Your task to perform on an android device: Play the last video I watched on Youtube Image 0: 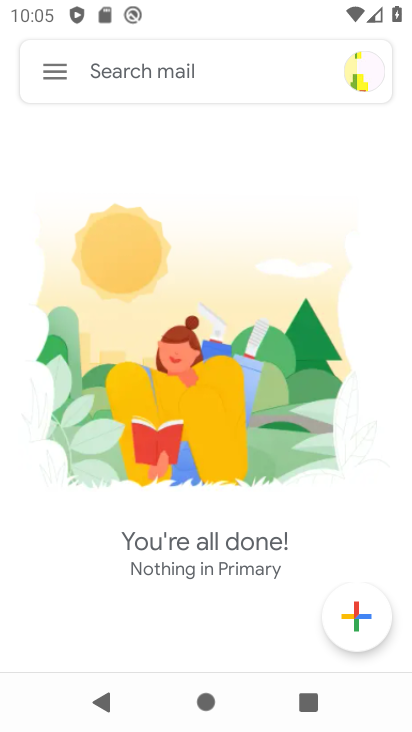
Step 0: press home button
Your task to perform on an android device: Play the last video I watched on Youtube Image 1: 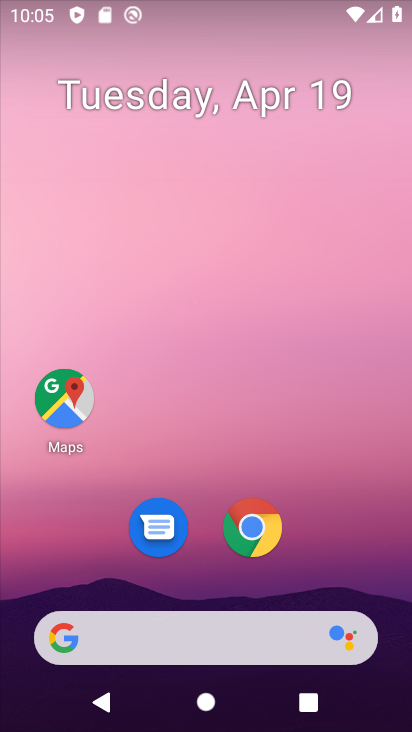
Step 1: drag from (282, 581) to (250, 165)
Your task to perform on an android device: Play the last video I watched on Youtube Image 2: 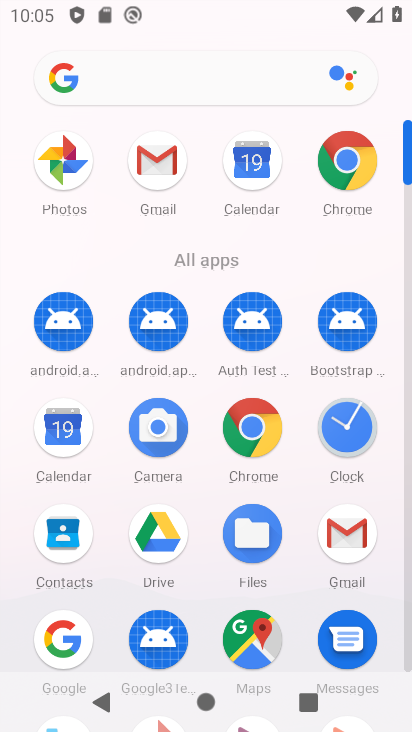
Step 2: drag from (303, 610) to (300, 129)
Your task to perform on an android device: Play the last video I watched on Youtube Image 3: 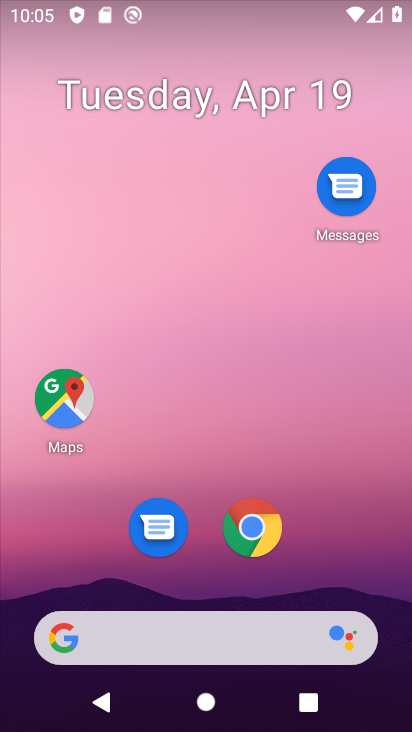
Step 3: drag from (307, 419) to (291, 192)
Your task to perform on an android device: Play the last video I watched on Youtube Image 4: 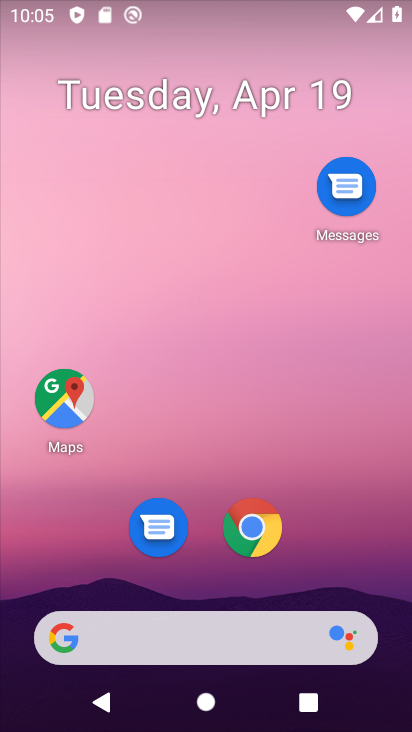
Step 4: drag from (284, 569) to (256, 86)
Your task to perform on an android device: Play the last video I watched on Youtube Image 5: 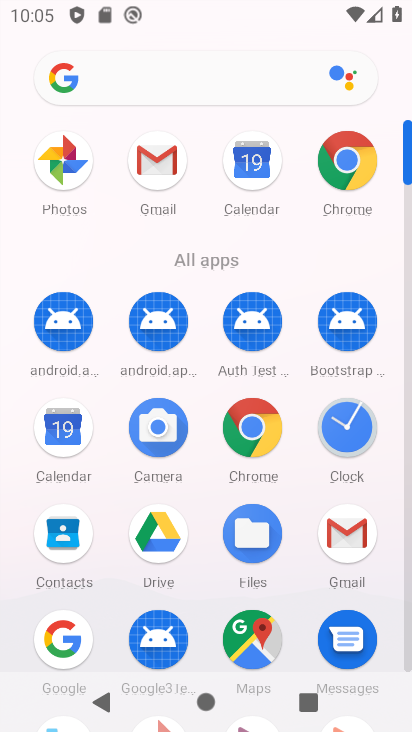
Step 5: drag from (301, 668) to (283, 187)
Your task to perform on an android device: Play the last video I watched on Youtube Image 6: 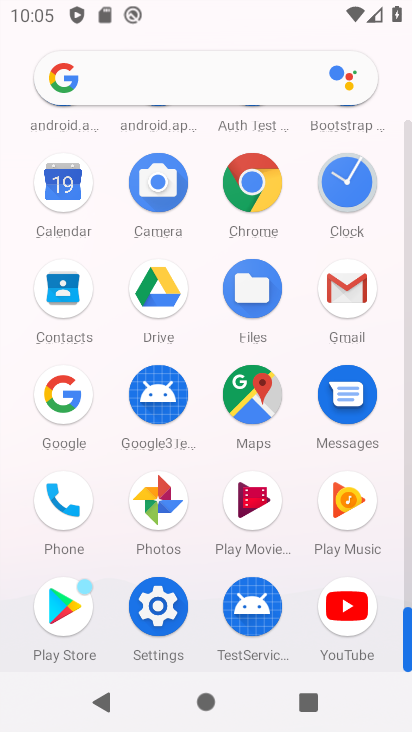
Step 6: click (351, 612)
Your task to perform on an android device: Play the last video I watched on Youtube Image 7: 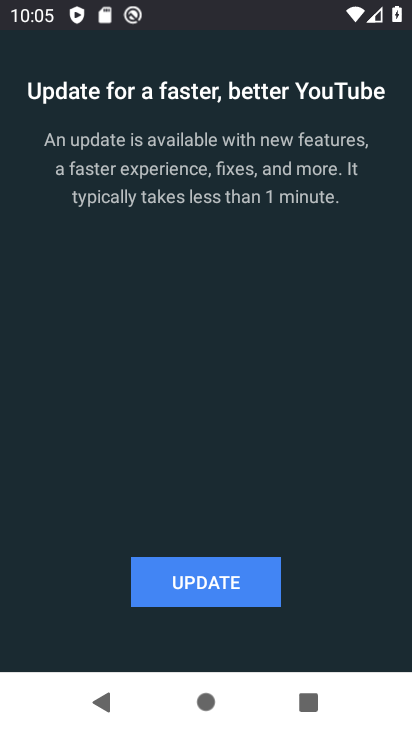
Step 7: click (245, 584)
Your task to perform on an android device: Play the last video I watched on Youtube Image 8: 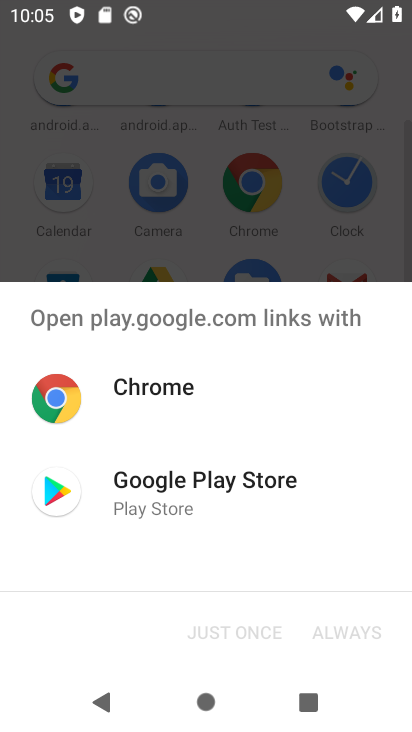
Step 8: click (179, 406)
Your task to perform on an android device: Play the last video I watched on Youtube Image 9: 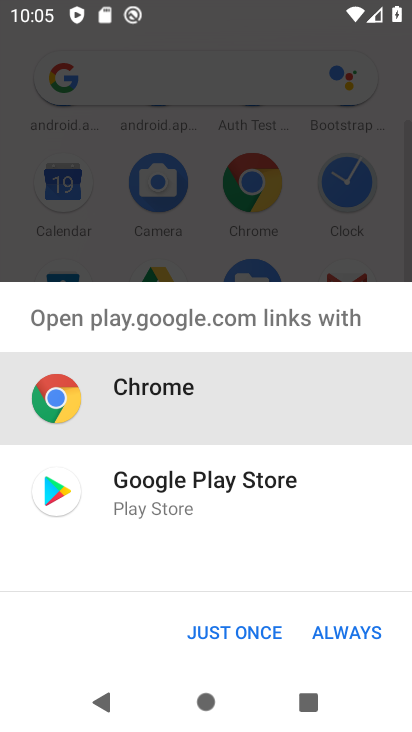
Step 9: click (176, 482)
Your task to perform on an android device: Play the last video I watched on Youtube Image 10: 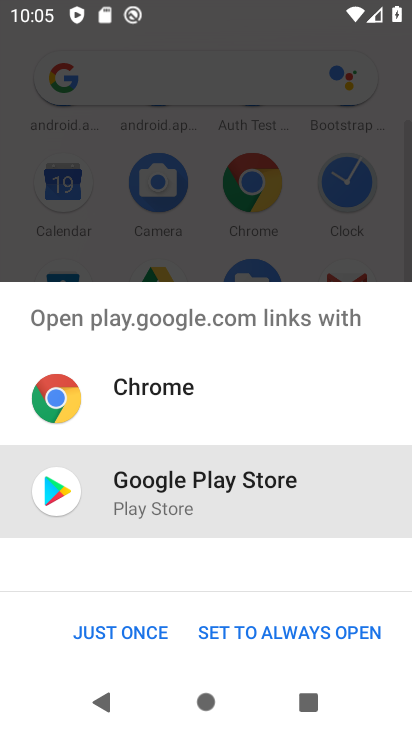
Step 10: click (227, 632)
Your task to perform on an android device: Play the last video I watched on Youtube Image 11: 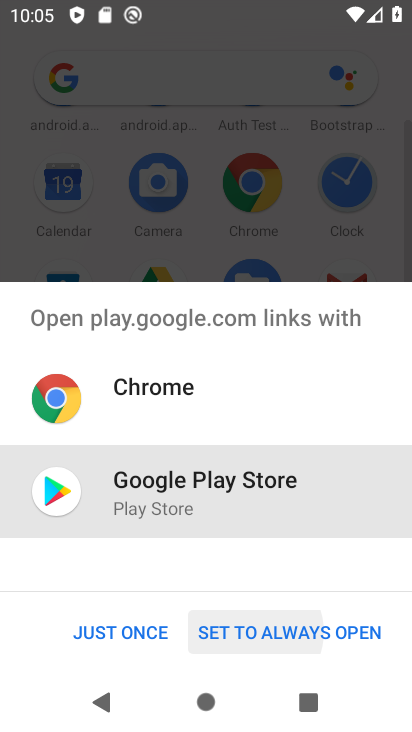
Step 11: drag from (226, 632) to (104, 650)
Your task to perform on an android device: Play the last video I watched on Youtube Image 12: 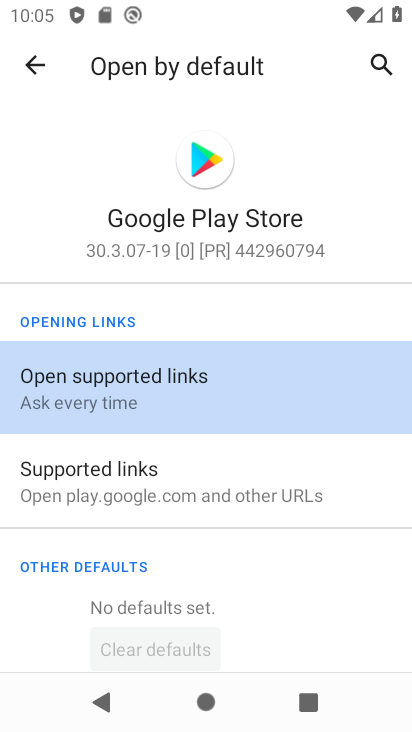
Step 12: press back button
Your task to perform on an android device: Play the last video I watched on Youtube Image 13: 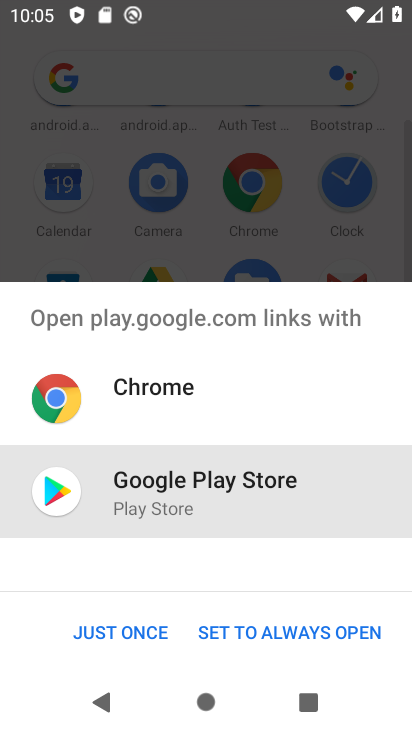
Step 13: click (143, 630)
Your task to perform on an android device: Play the last video I watched on Youtube Image 14: 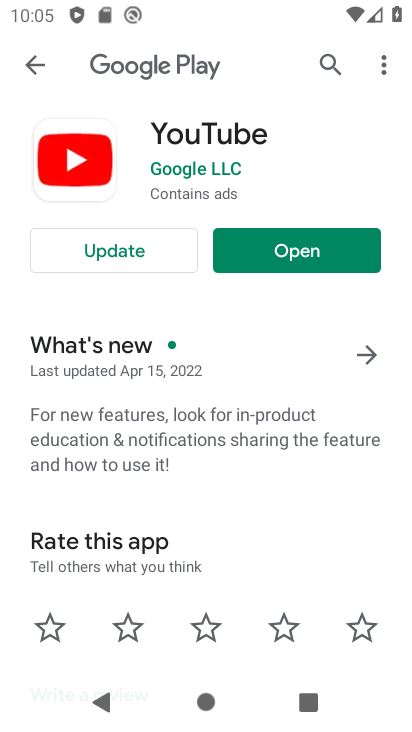
Step 14: click (139, 247)
Your task to perform on an android device: Play the last video I watched on Youtube Image 15: 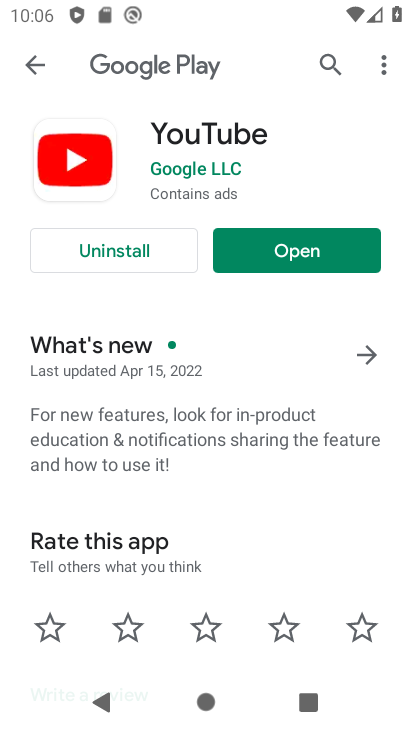
Step 15: click (298, 253)
Your task to perform on an android device: Play the last video I watched on Youtube Image 16: 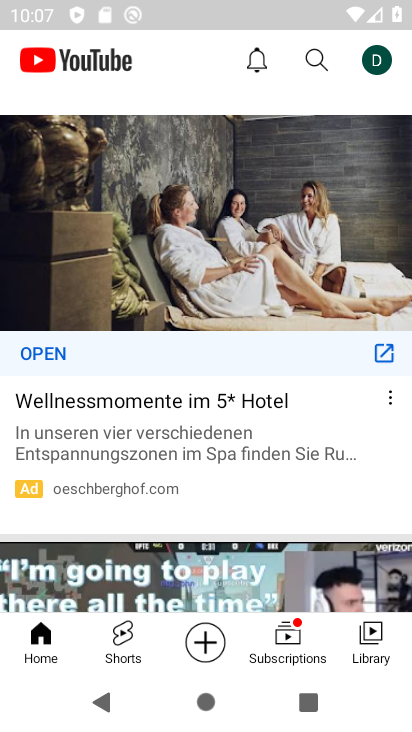
Step 16: click (381, 57)
Your task to perform on an android device: Play the last video I watched on Youtube Image 17: 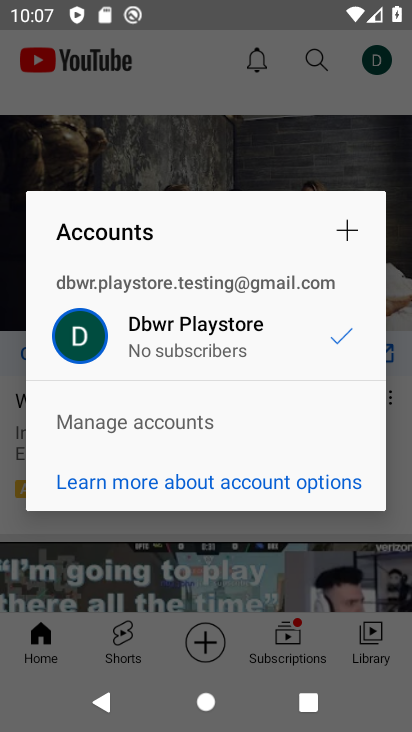
Step 17: click (260, 99)
Your task to perform on an android device: Play the last video I watched on Youtube Image 18: 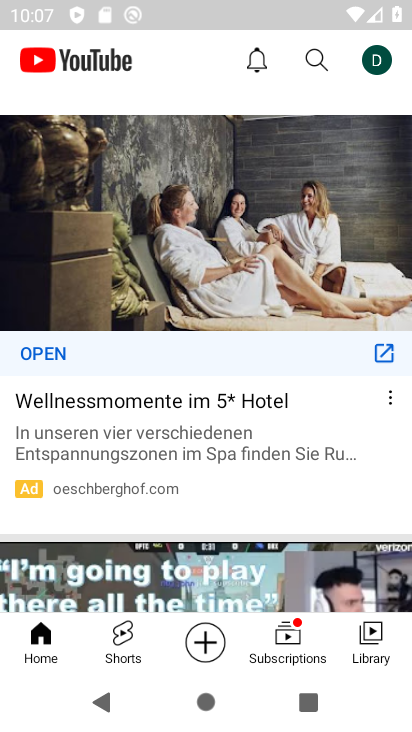
Step 18: click (375, 659)
Your task to perform on an android device: Play the last video I watched on Youtube Image 19: 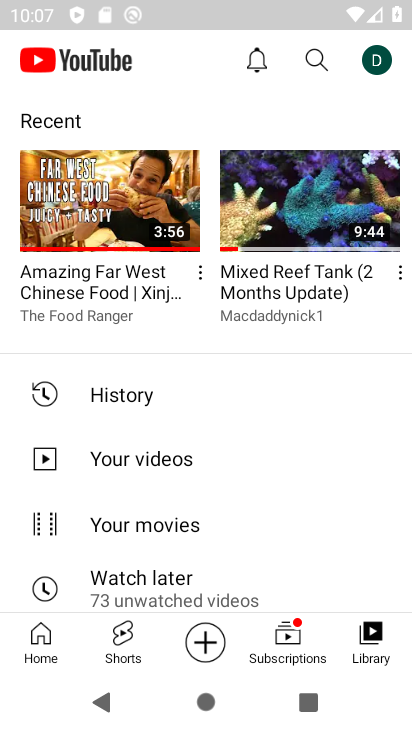
Step 19: click (127, 406)
Your task to perform on an android device: Play the last video I watched on Youtube Image 20: 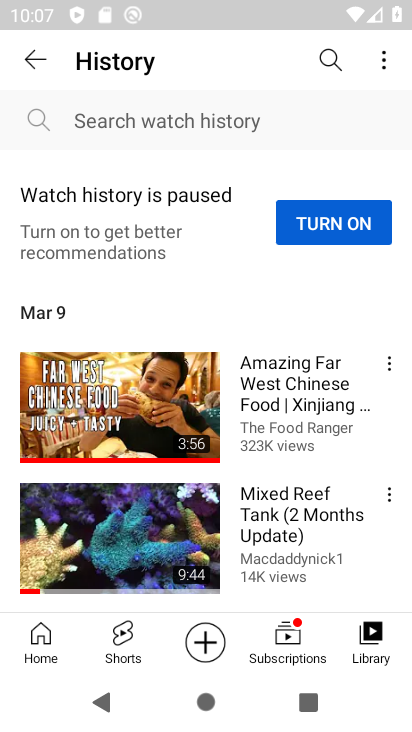
Step 20: click (164, 403)
Your task to perform on an android device: Play the last video I watched on Youtube Image 21: 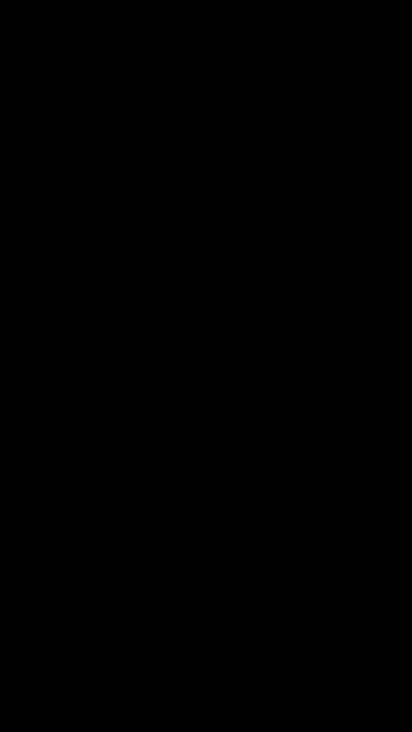
Step 21: task complete